Your task to perform on an android device: Add razer deathadder to the cart on bestbuy.com, then select checkout. Image 0: 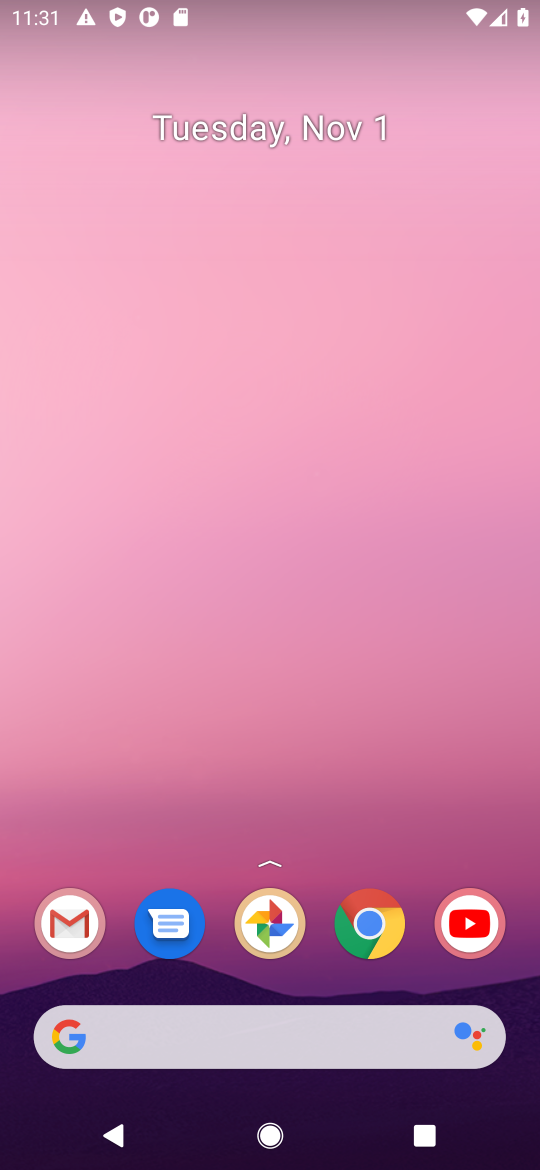
Step 0: click (367, 943)
Your task to perform on an android device: Add razer deathadder to the cart on bestbuy.com, then select checkout. Image 1: 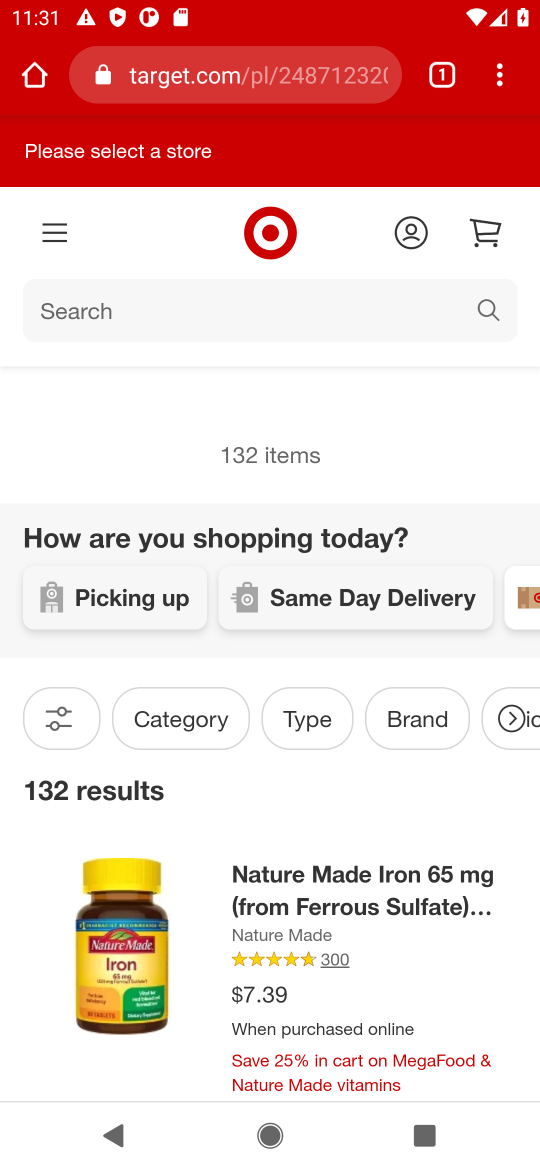
Step 1: click (192, 73)
Your task to perform on an android device: Add razer deathadder to the cart on bestbuy.com, then select checkout. Image 2: 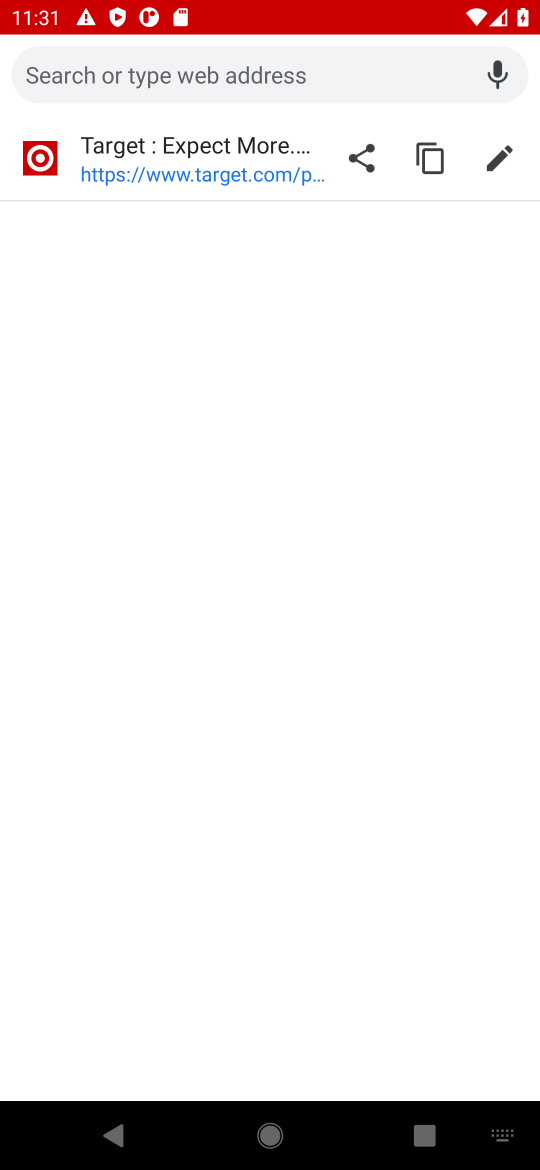
Step 2: type "bestbuy.com"
Your task to perform on an android device: Add razer deathadder to the cart on bestbuy.com, then select checkout. Image 3: 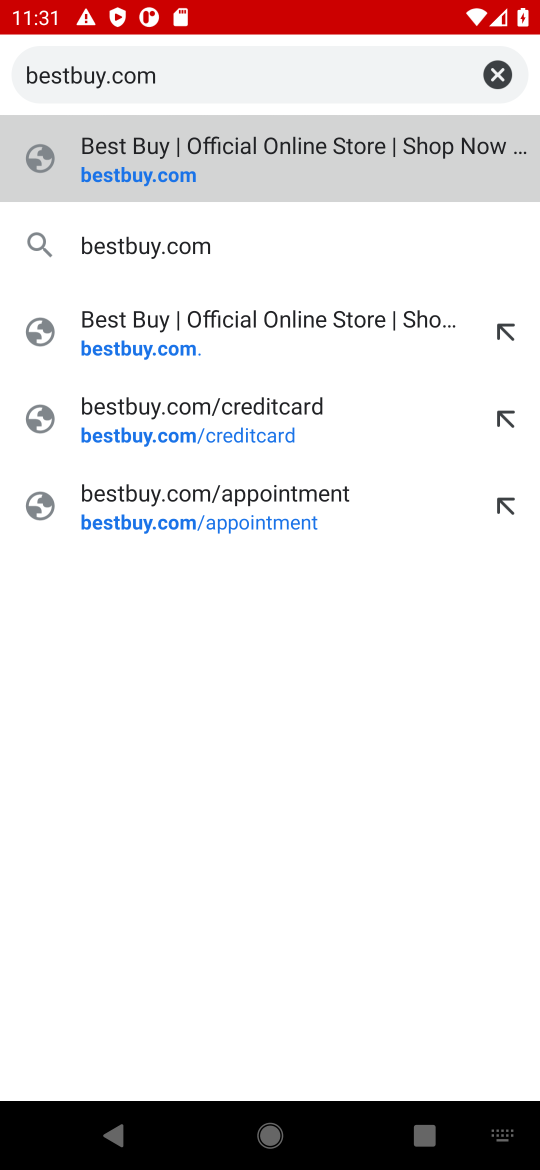
Step 3: type ""
Your task to perform on an android device: Add razer deathadder to the cart on bestbuy.com, then select checkout. Image 4: 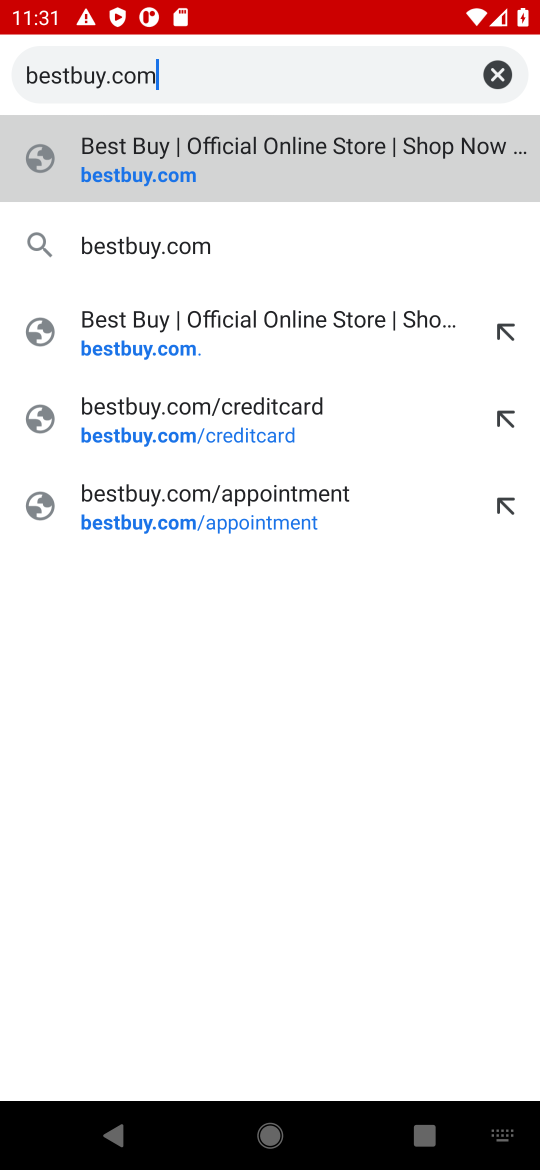
Step 4: click (345, 156)
Your task to perform on an android device: Add razer deathadder to the cart on bestbuy.com, then select checkout. Image 5: 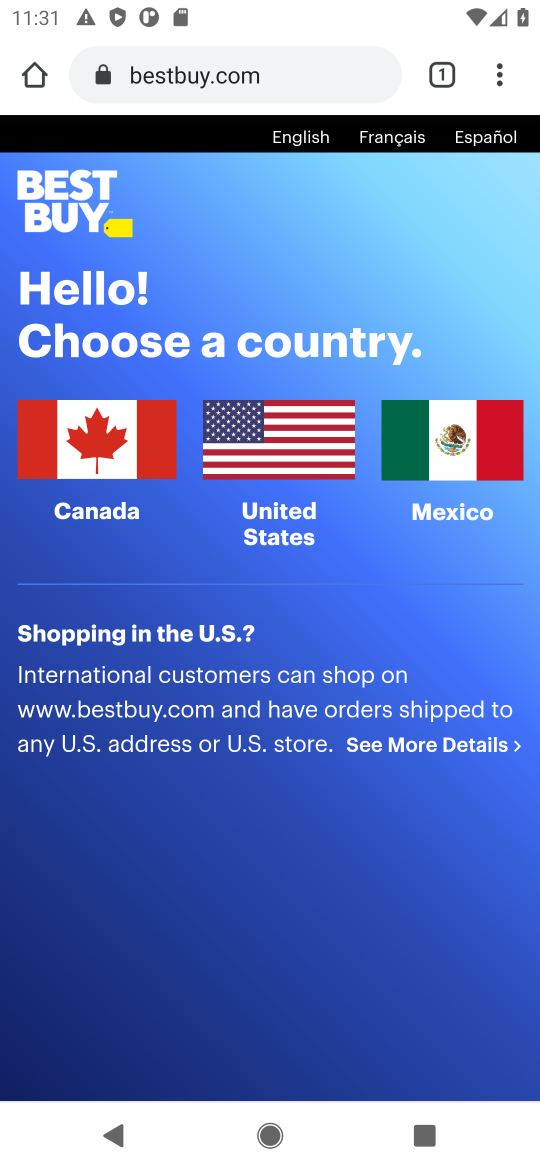
Step 5: click (263, 437)
Your task to perform on an android device: Add razer deathadder to the cart on bestbuy.com, then select checkout. Image 6: 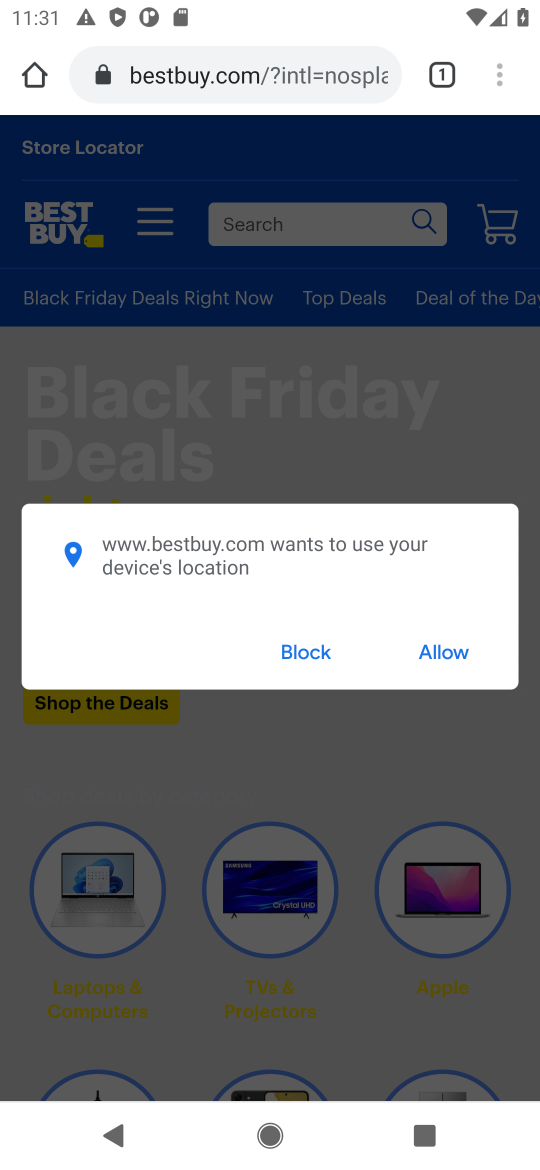
Step 6: click (278, 650)
Your task to perform on an android device: Add razer deathadder to the cart on bestbuy.com, then select checkout. Image 7: 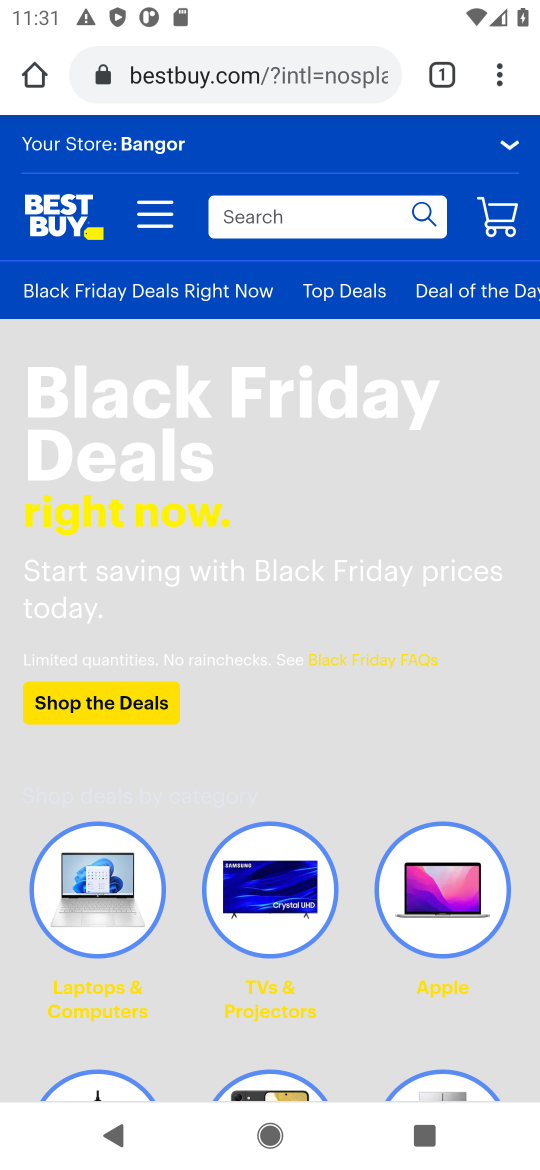
Step 7: click (292, 205)
Your task to perform on an android device: Add razer deathadder to the cart on bestbuy.com, then select checkout. Image 8: 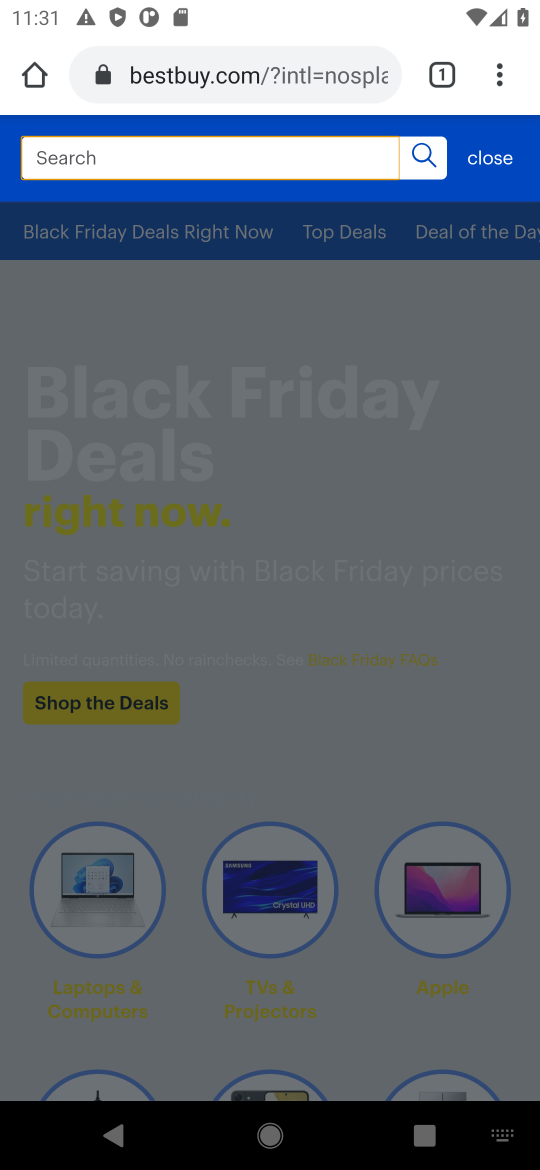
Step 8: type "razer deathadder"
Your task to perform on an android device: Add razer deathadder to the cart on bestbuy.com, then select checkout. Image 9: 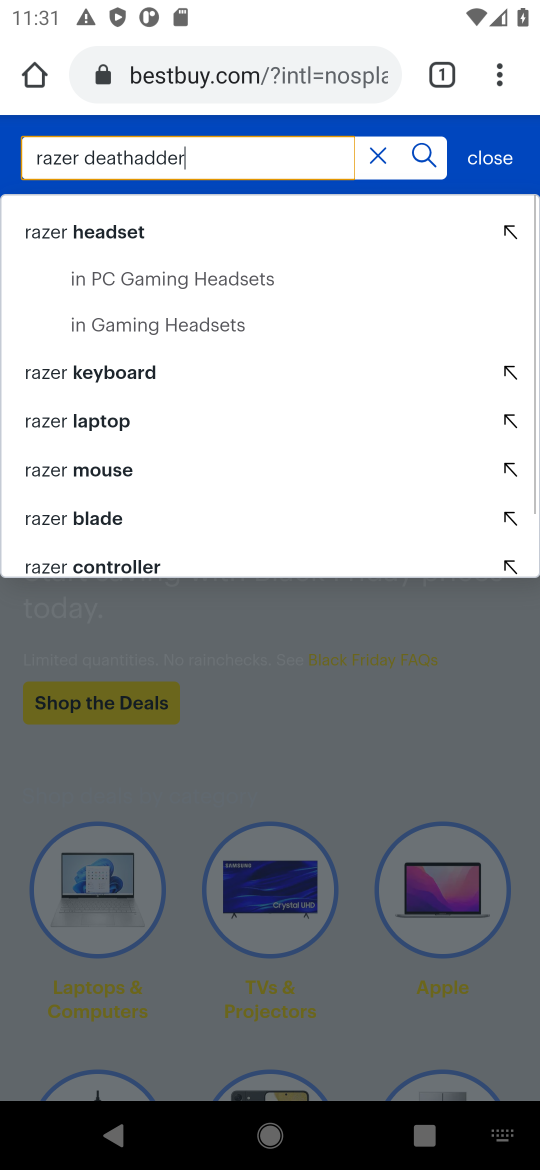
Step 9: type ""
Your task to perform on an android device: Add razer deathadder to the cart on bestbuy.com, then select checkout. Image 10: 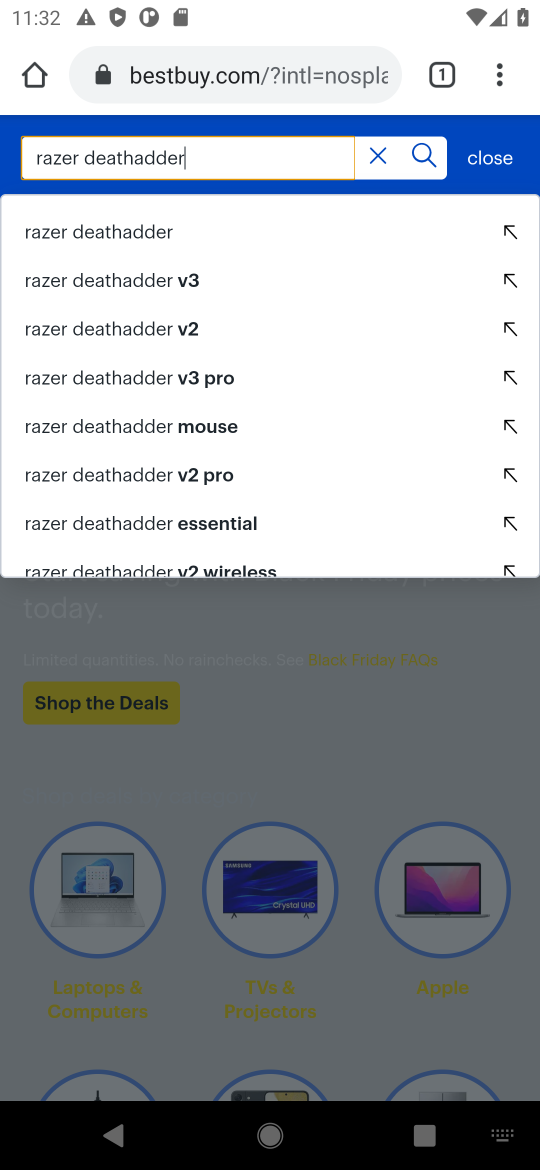
Step 10: click (198, 239)
Your task to perform on an android device: Add razer deathadder to the cart on bestbuy.com, then select checkout. Image 11: 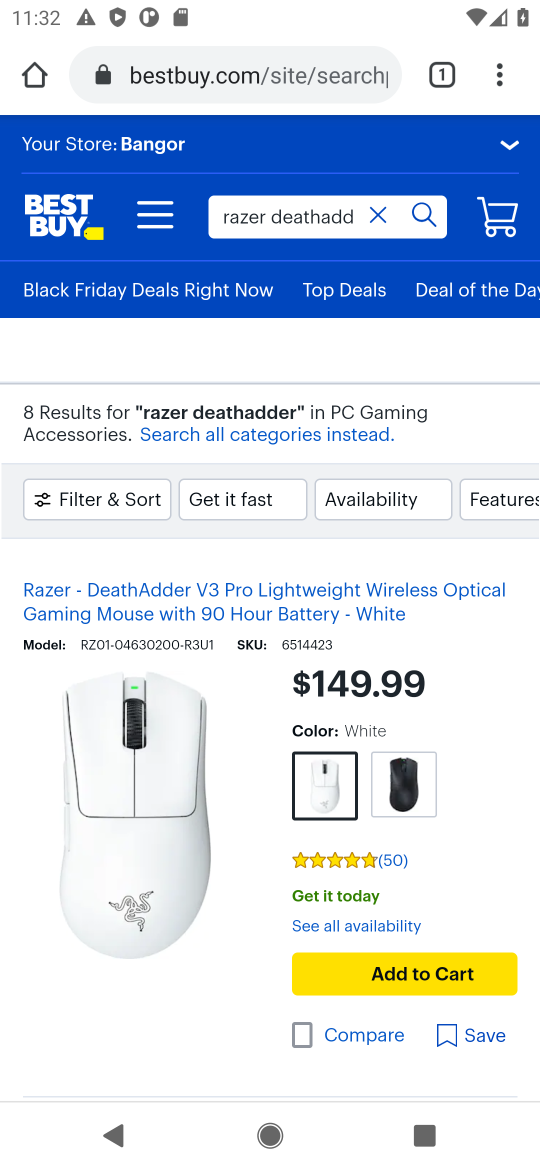
Step 11: click (224, 582)
Your task to perform on an android device: Add razer deathadder to the cart on bestbuy.com, then select checkout. Image 12: 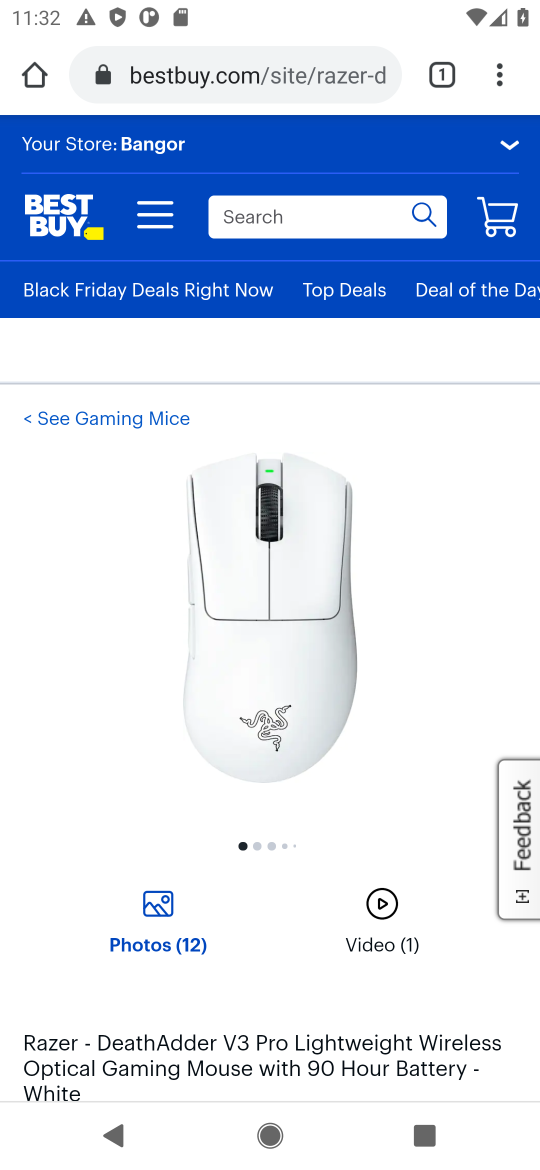
Step 12: drag from (205, 879) to (285, 328)
Your task to perform on an android device: Add razer deathadder to the cart on bestbuy.com, then select checkout. Image 13: 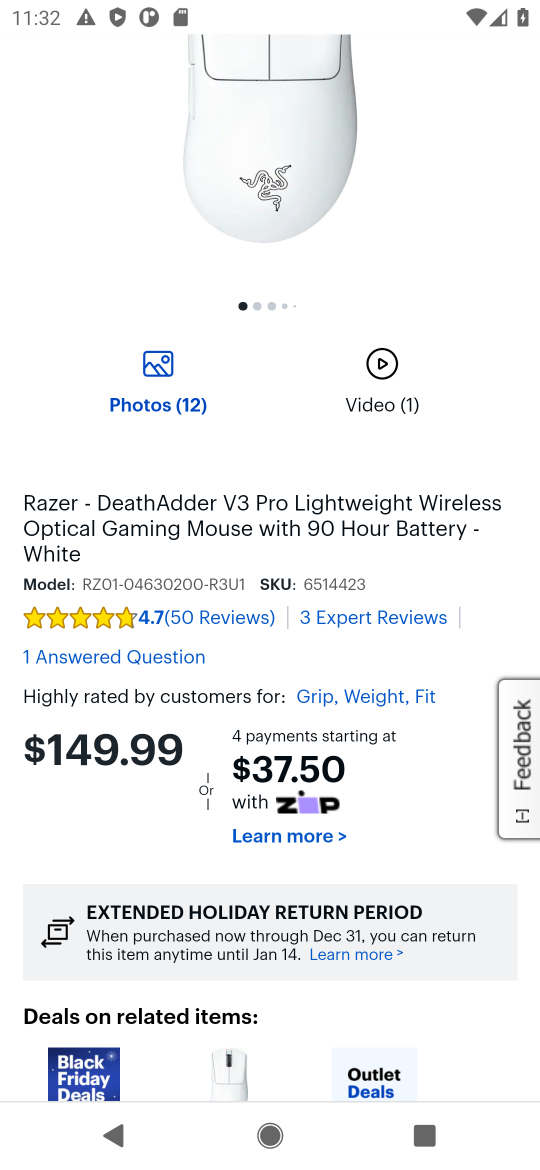
Step 13: drag from (324, 741) to (331, 248)
Your task to perform on an android device: Add razer deathadder to the cart on bestbuy.com, then select checkout. Image 14: 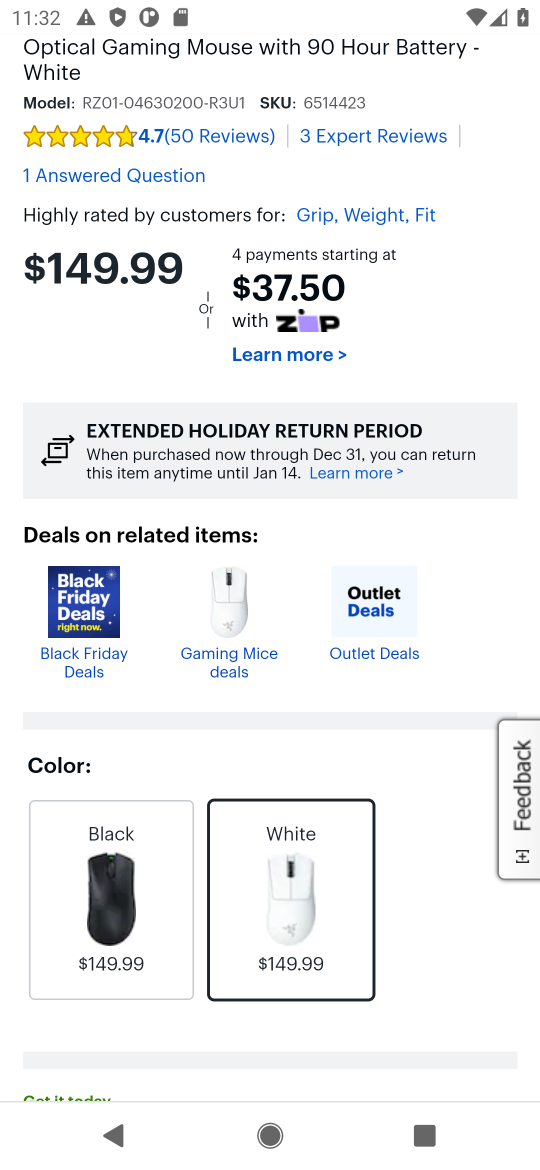
Step 14: drag from (291, 786) to (308, 234)
Your task to perform on an android device: Add razer deathadder to the cart on bestbuy.com, then select checkout. Image 15: 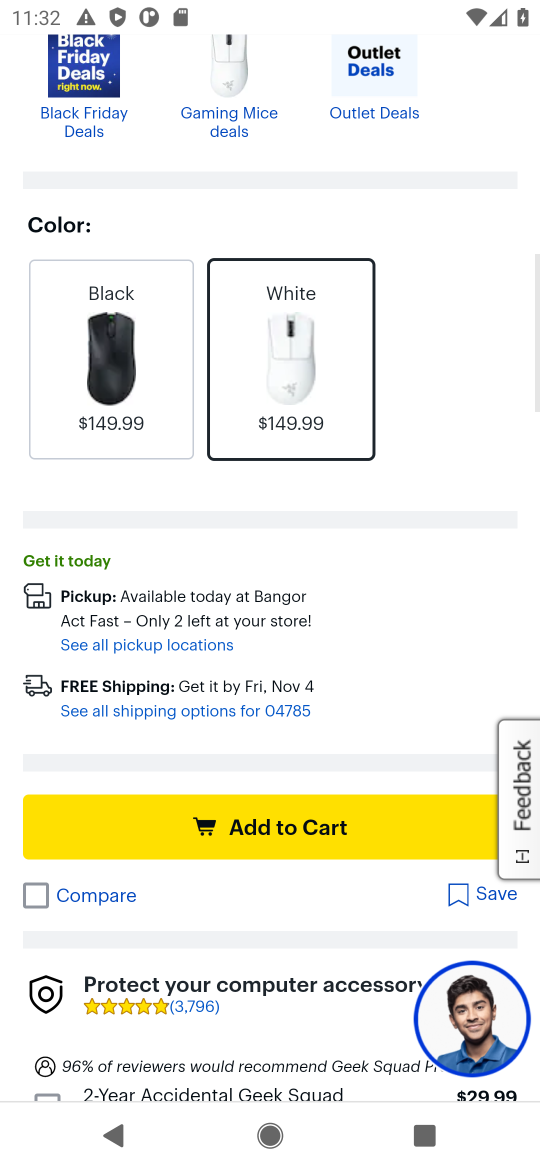
Step 15: click (263, 820)
Your task to perform on an android device: Add razer deathadder to the cart on bestbuy.com, then select checkout. Image 16: 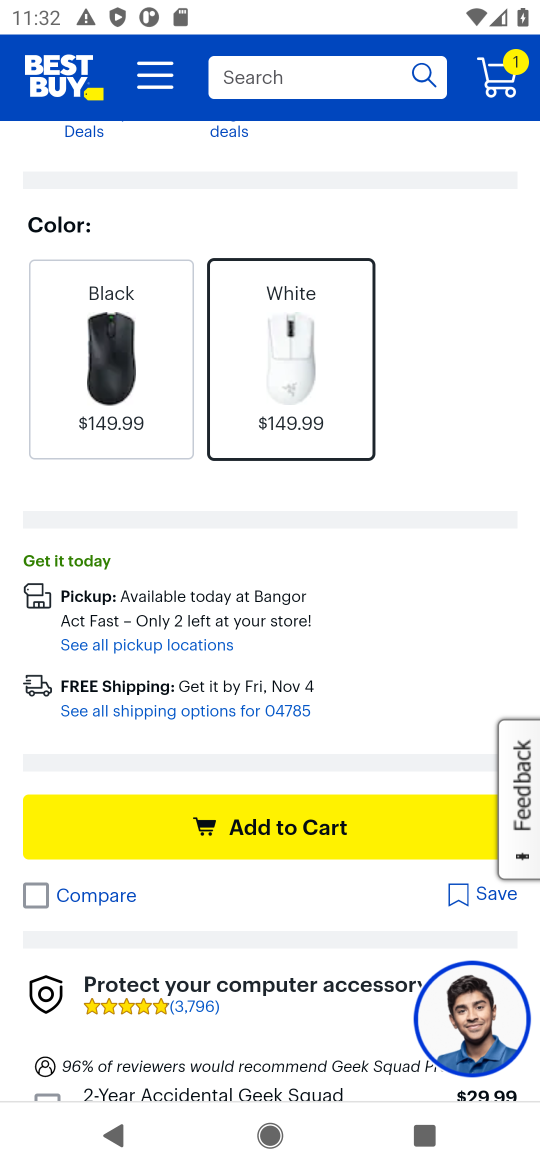
Step 16: click (504, 82)
Your task to perform on an android device: Add razer deathadder to the cart on bestbuy.com, then select checkout. Image 17: 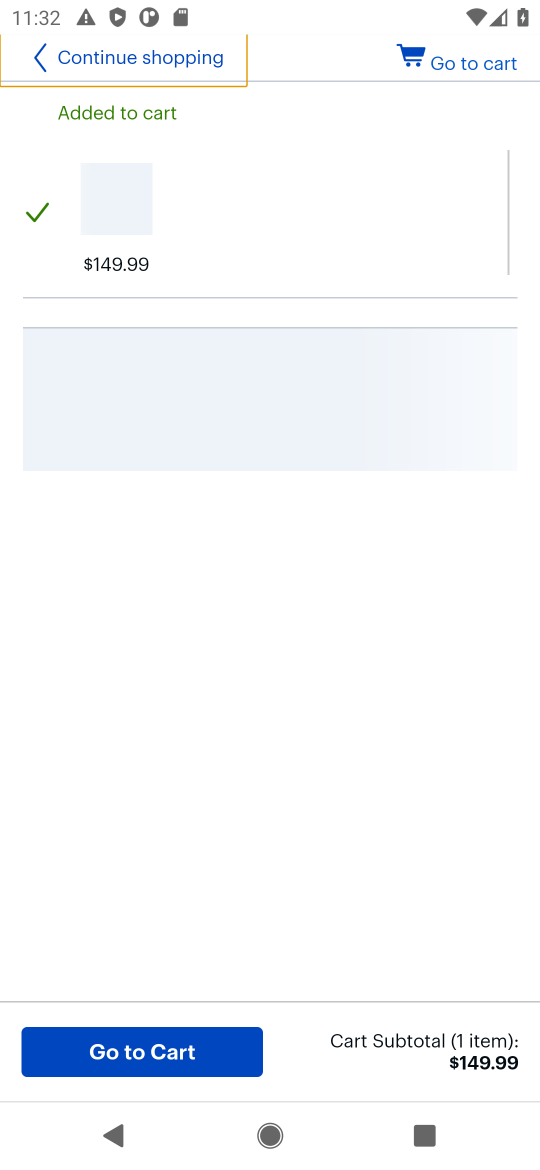
Step 17: click (498, 59)
Your task to perform on an android device: Add razer deathadder to the cart on bestbuy.com, then select checkout. Image 18: 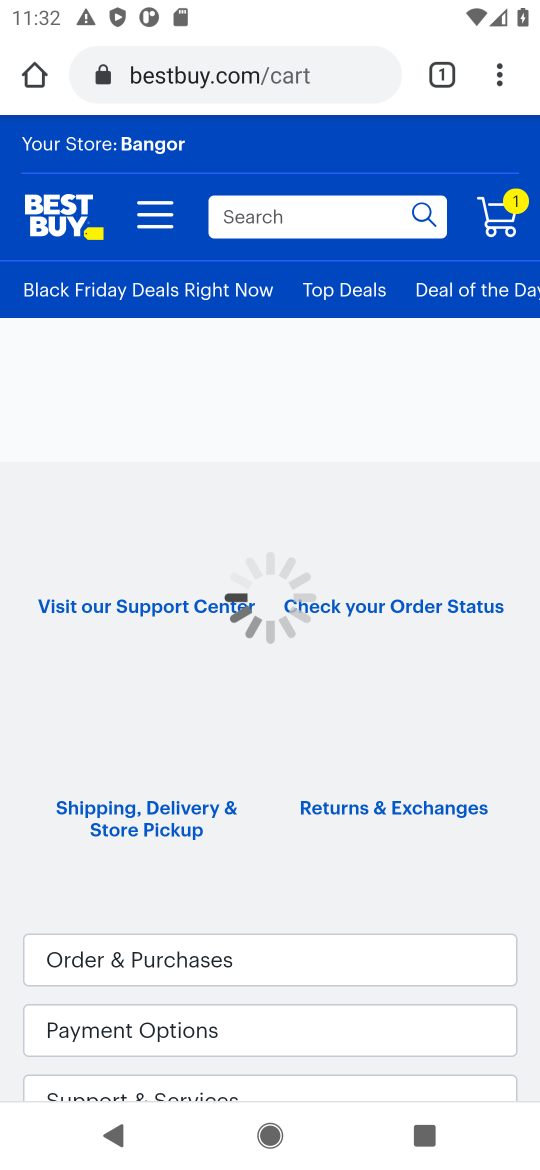
Step 18: click (496, 228)
Your task to perform on an android device: Add razer deathadder to the cart on bestbuy.com, then select checkout. Image 19: 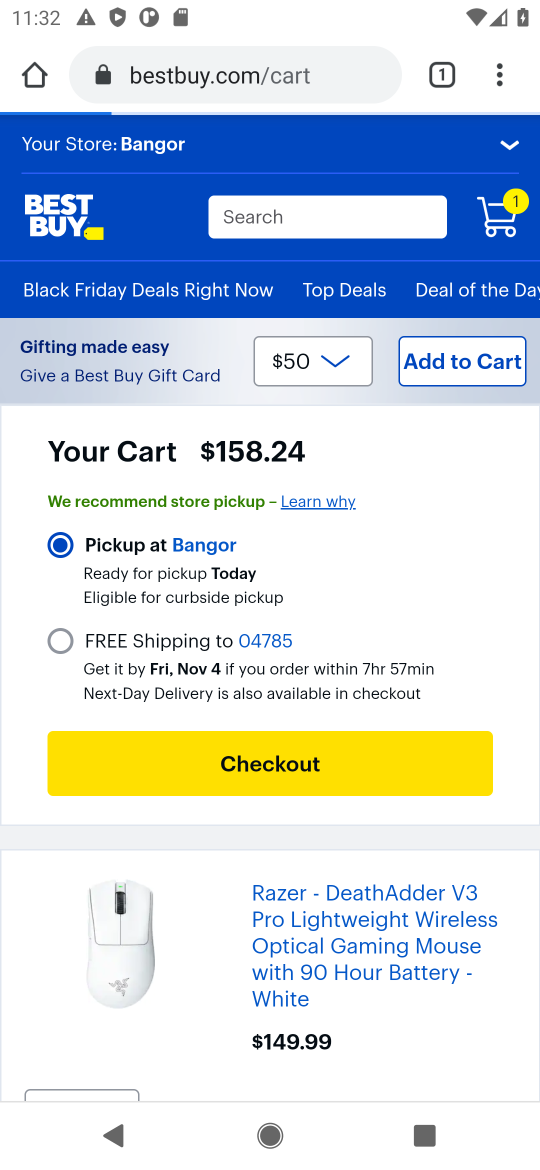
Step 19: click (358, 761)
Your task to perform on an android device: Add razer deathadder to the cart on bestbuy.com, then select checkout. Image 20: 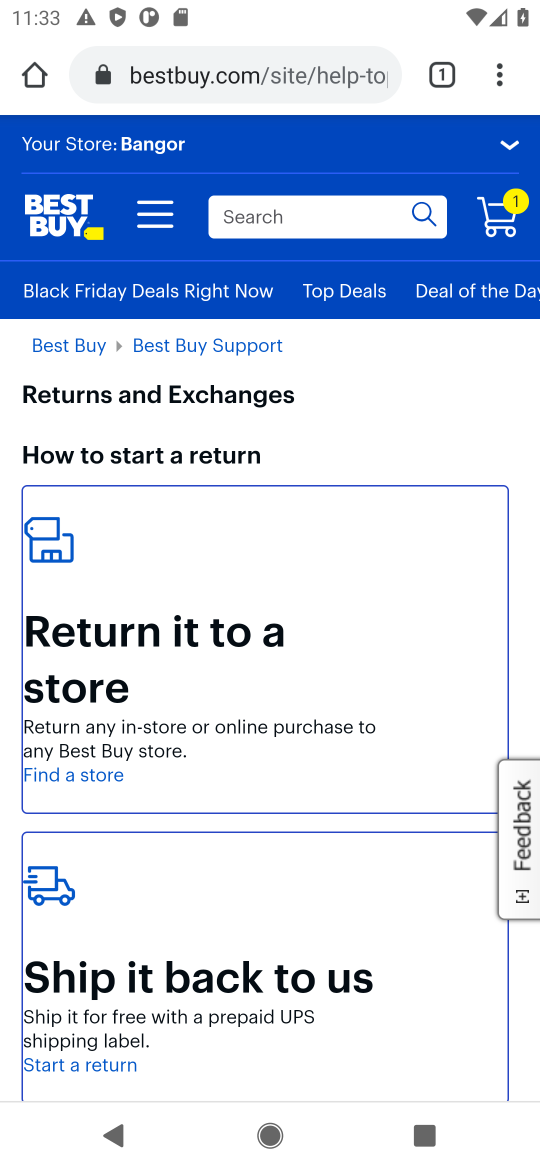
Step 20: click (482, 215)
Your task to perform on an android device: Add razer deathadder to the cart on bestbuy.com, then select checkout. Image 21: 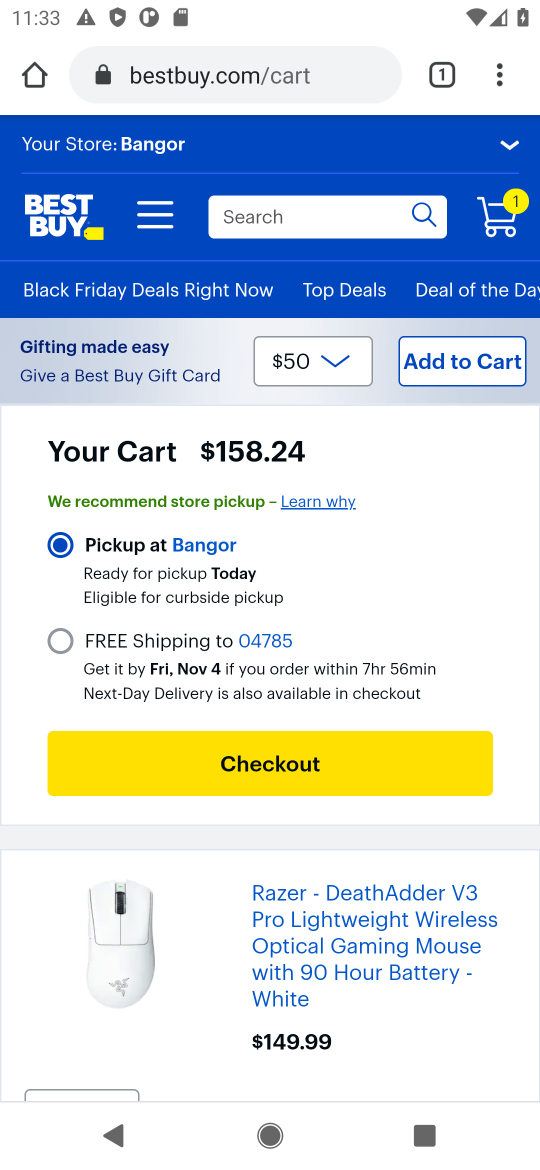
Step 21: click (317, 756)
Your task to perform on an android device: Add razer deathadder to the cart on bestbuy.com, then select checkout. Image 22: 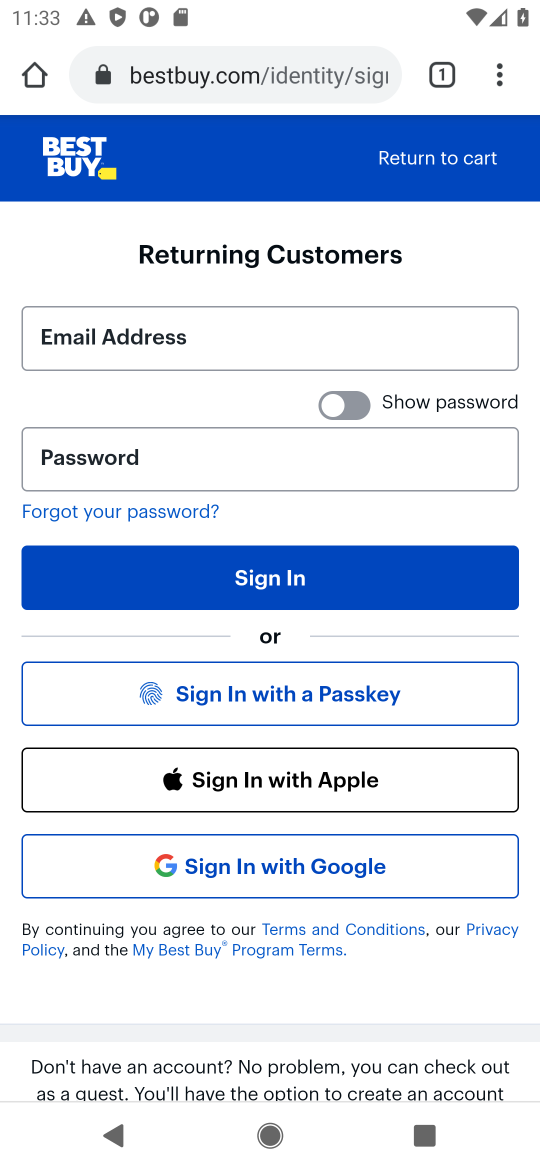
Step 22: task complete